Your task to perform on an android device: Go to ESPN.com Image 0: 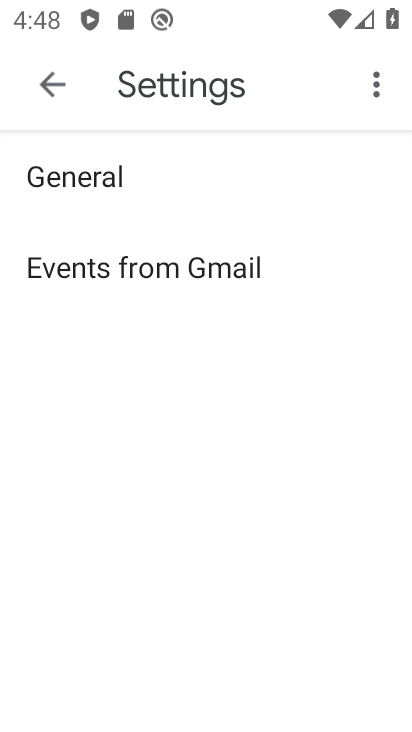
Step 0: type "ESPN.com"
Your task to perform on an android device: Go to ESPN.com Image 1: 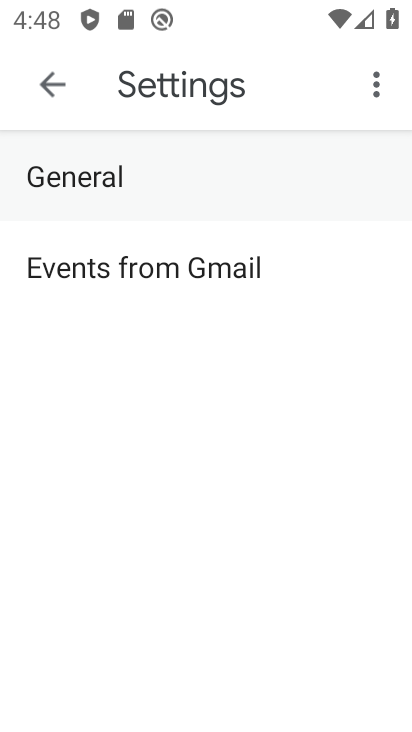
Step 1: click (56, 99)
Your task to perform on an android device: Go to ESPN.com Image 2: 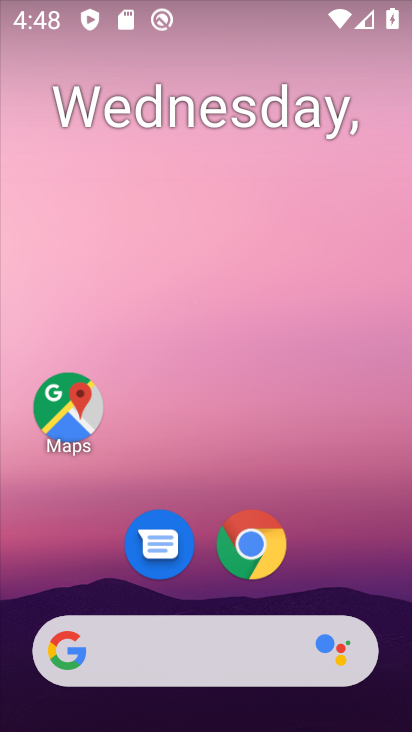
Step 2: click (250, 545)
Your task to perform on an android device: Go to ESPN.com Image 3: 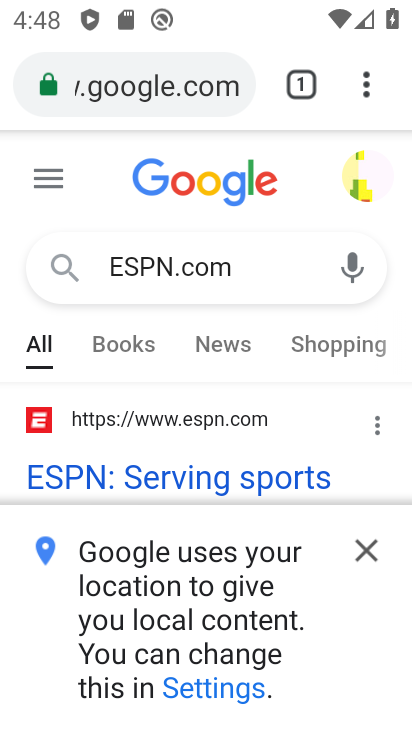
Step 3: click (238, 89)
Your task to perform on an android device: Go to ESPN.com Image 4: 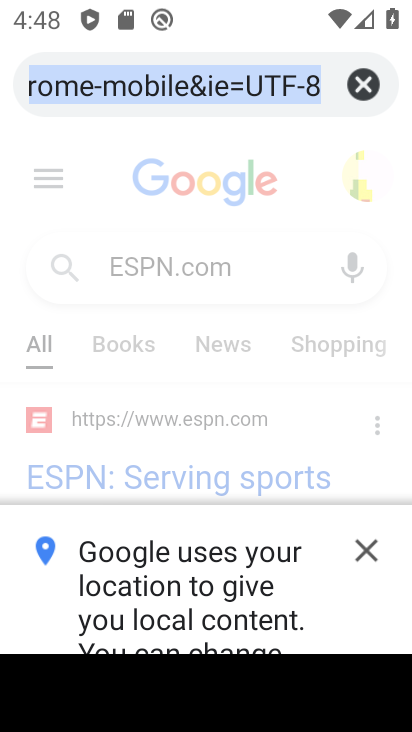
Step 4: click (363, 81)
Your task to perform on an android device: Go to ESPN.com Image 5: 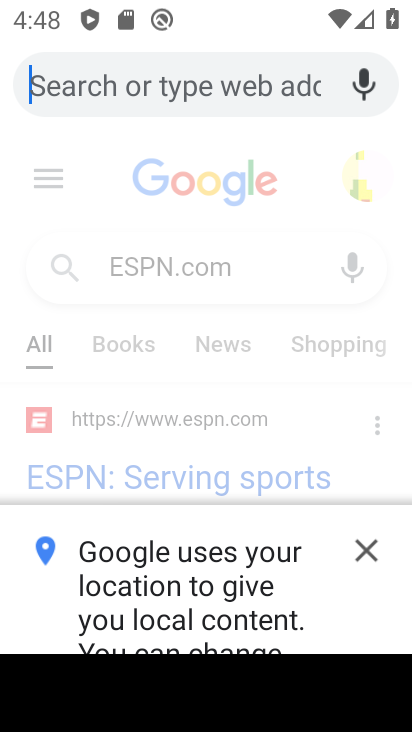
Step 5: type "ESPN.com"
Your task to perform on an android device: Go to ESPN.com Image 6: 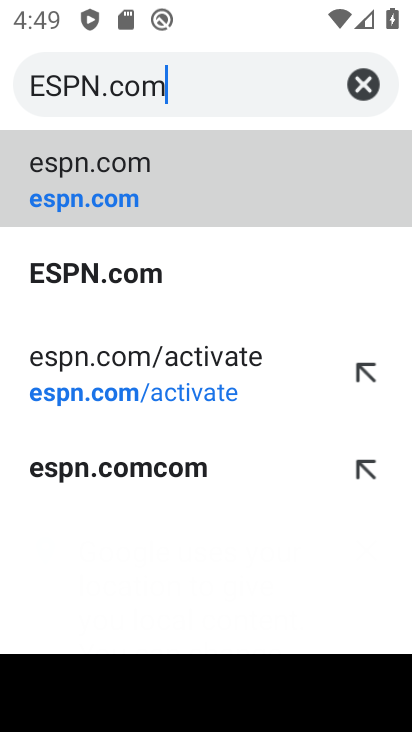
Step 6: click (125, 277)
Your task to perform on an android device: Go to ESPN.com Image 7: 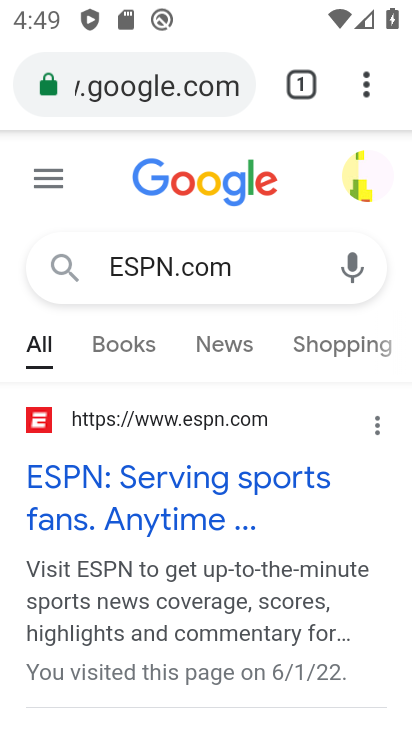
Step 7: task complete